Your task to perform on an android device: snooze an email in the gmail app Image 0: 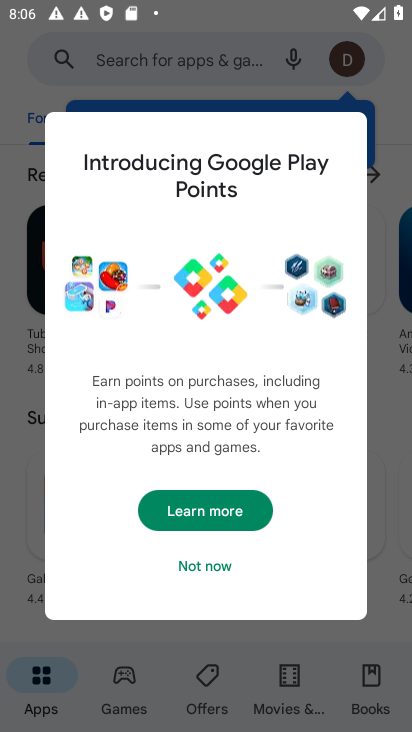
Step 0: press home button
Your task to perform on an android device: snooze an email in the gmail app Image 1: 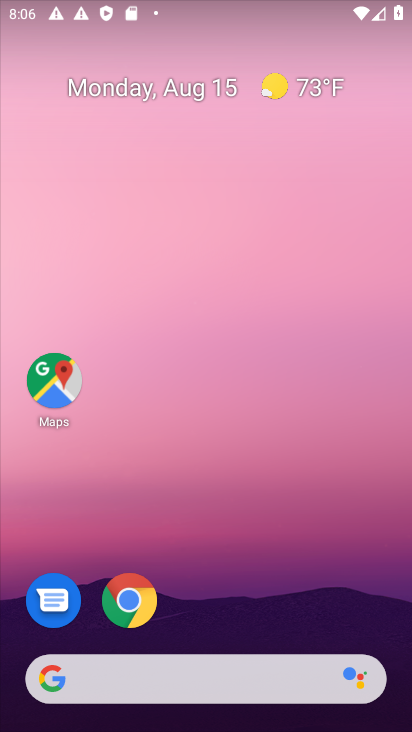
Step 1: drag from (220, 638) to (220, 147)
Your task to perform on an android device: snooze an email in the gmail app Image 2: 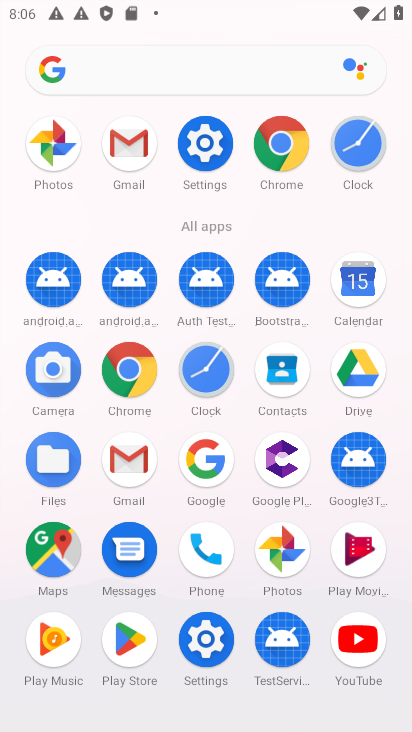
Step 2: click (127, 460)
Your task to perform on an android device: snooze an email in the gmail app Image 3: 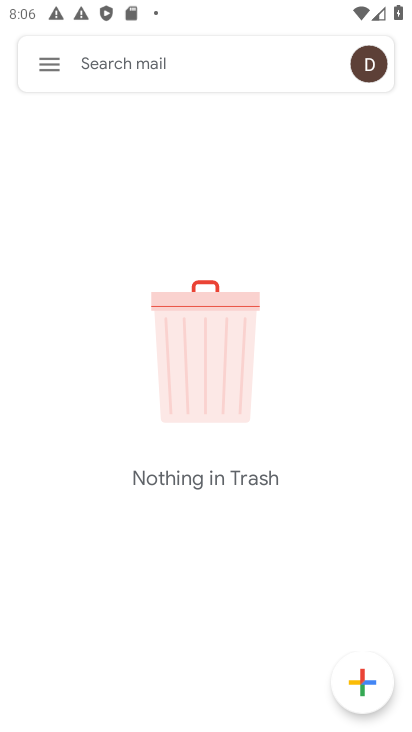
Step 3: click (39, 64)
Your task to perform on an android device: snooze an email in the gmail app Image 4: 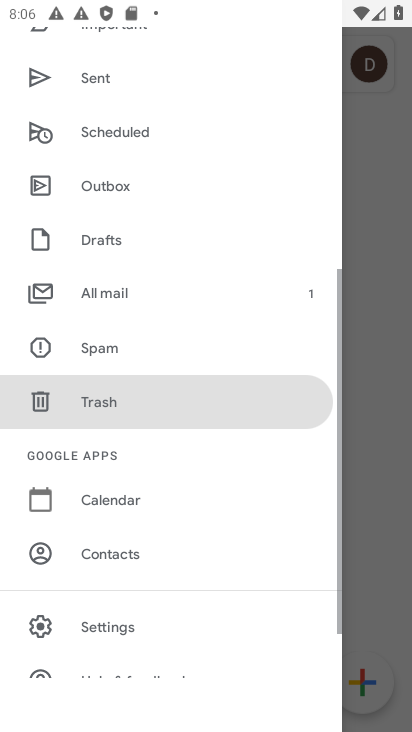
Step 4: drag from (106, 92) to (106, 637)
Your task to perform on an android device: snooze an email in the gmail app Image 5: 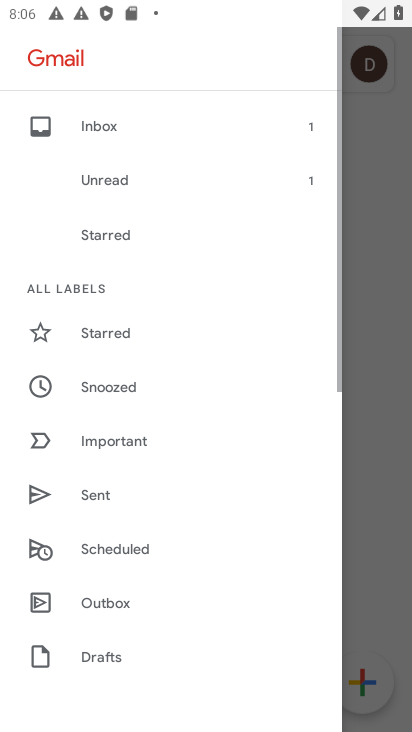
Step 5: click (95, 122)
Your task to perform on an android device: snooze an email in the gmail app Image 6: 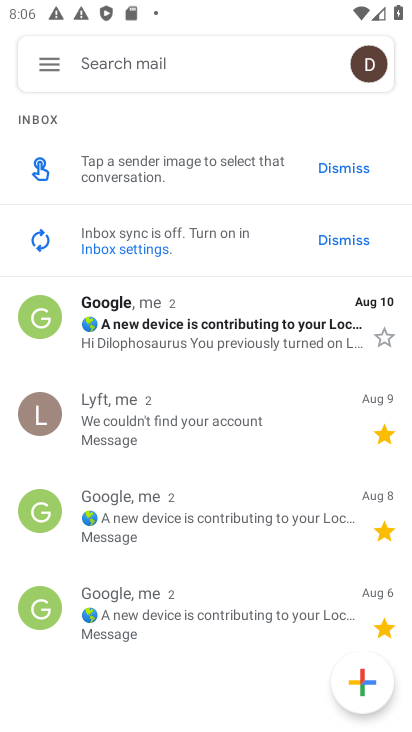
Step 6: click (194, 343)
Your task to perform on an android device: snooze an email in the gmail app Image 7: 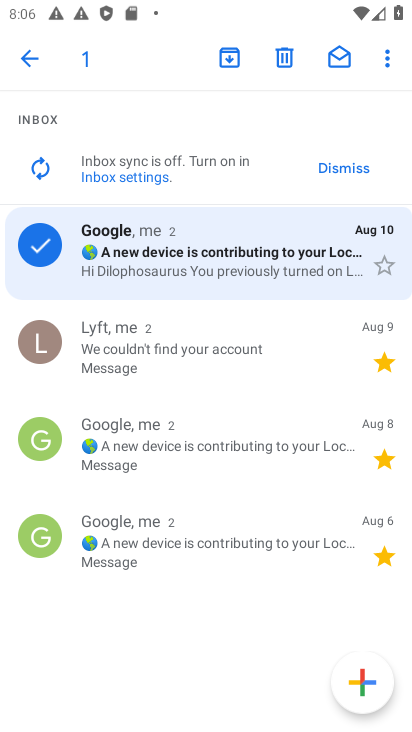
Step 7: click (386, 65)
Your task to perform on an android device: snooze an email in the gmail app Image 8: 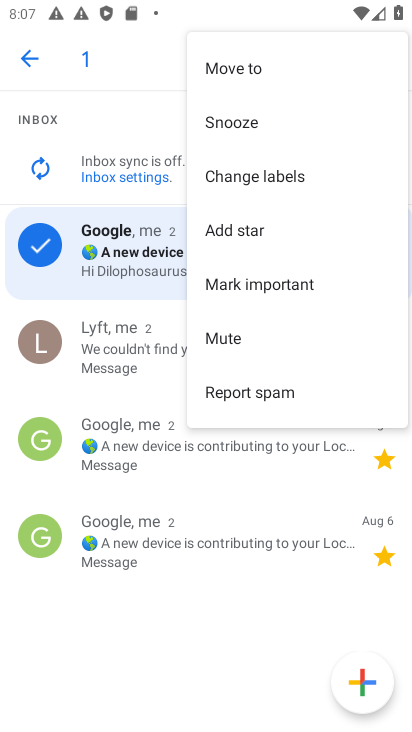
Step 8: click (237, 122)
Your task to perform on an android device: snooze an email in the gmail app Image 9: 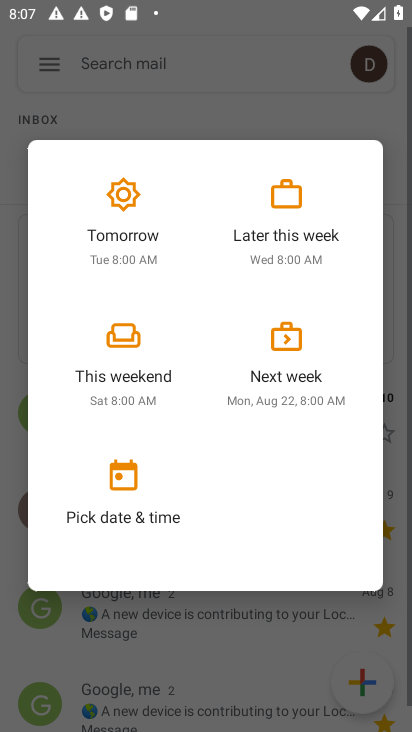
Step 9: click (133, 232)
Your task to perform on an android device: snooze an email in the gmail app Image 10: 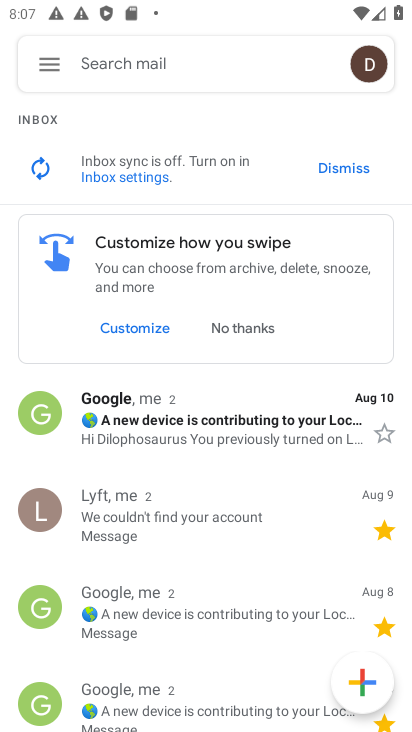
Step 10: task complete